Your task to perform on an android device: read, delete, or share a saved page in the chrome app Image 0: 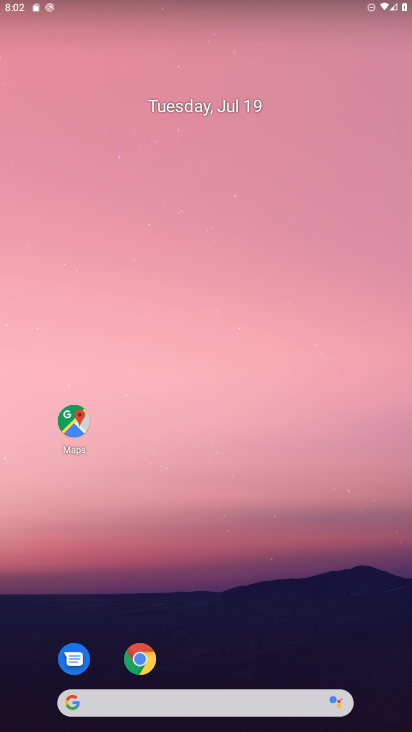
Step 0: drag from (222, 639) to (222, 112)
Your task to perform on an android device: read, delete, or share a saved page in the chrome app Image 1: 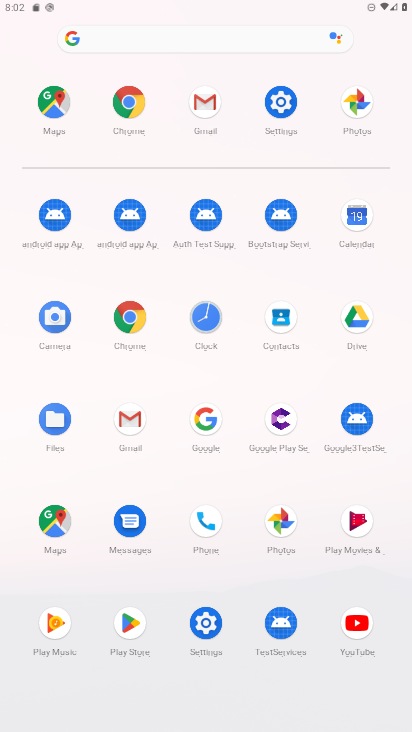
Step 1: click (115, 315)
Your task to perform on an android device: read, delete, or share a saved page in the chrome app Image 2: 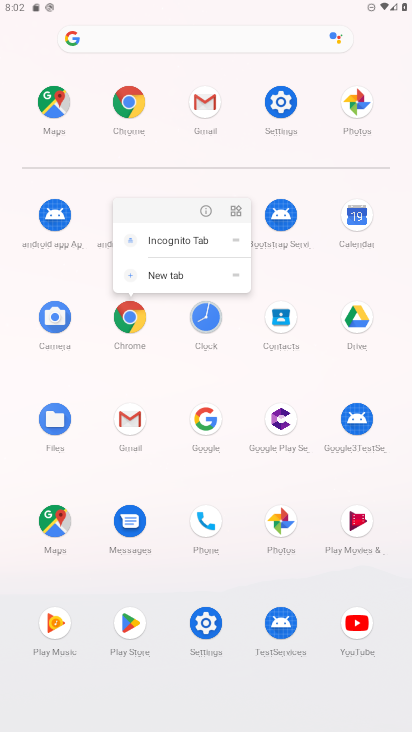
Step 2: click (124, 298)
Your task to perform on an android device: read, delete, or share a saved page in the chrome app Image 3: 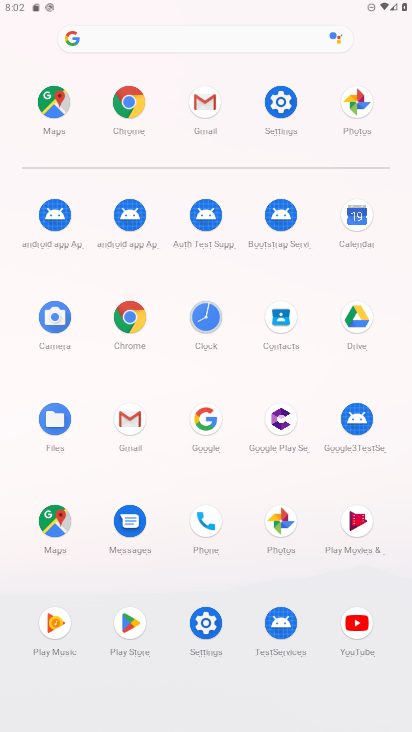
Step 3: click (124, 298)
Your task to perform on an android device: read, delete, or share a saved page in the chrome app Image 4: 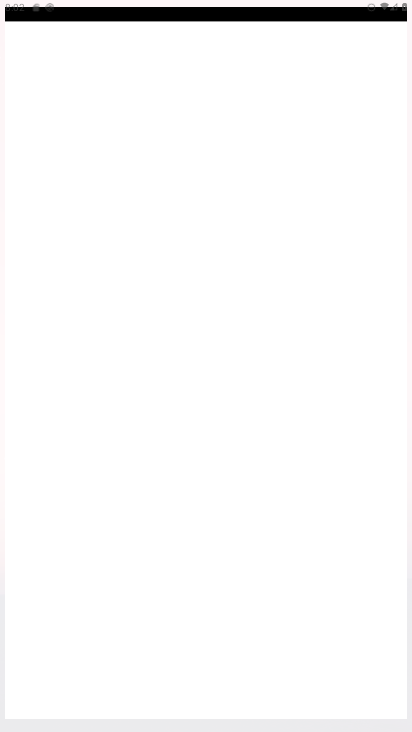
Step 4: click (124, 302)
Your task to perform on an android device: read, delete, or share a saved page in the chrome app Image 5: 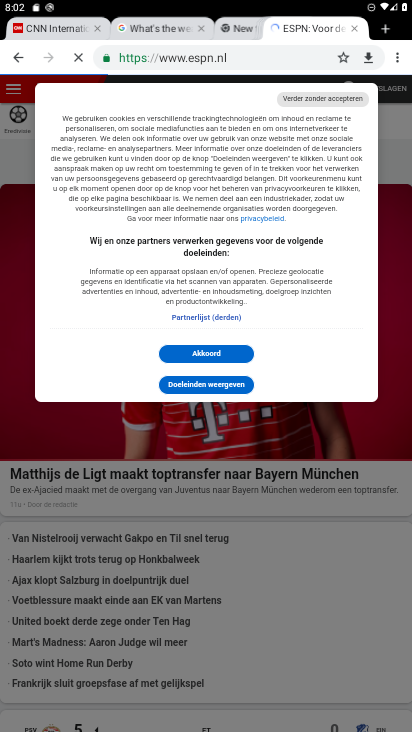
Step 5: click (398, 55)
Your task to perform on an android device: read, delete, or share a saved page in the chrome app Image 6: 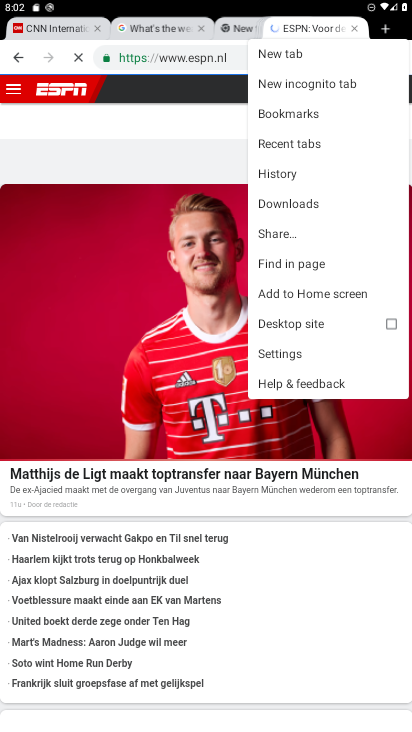
Step 6: click (295, 351)
Your task to perform on an android device: read, delete, or share a saved page in the chrome app Image 7: 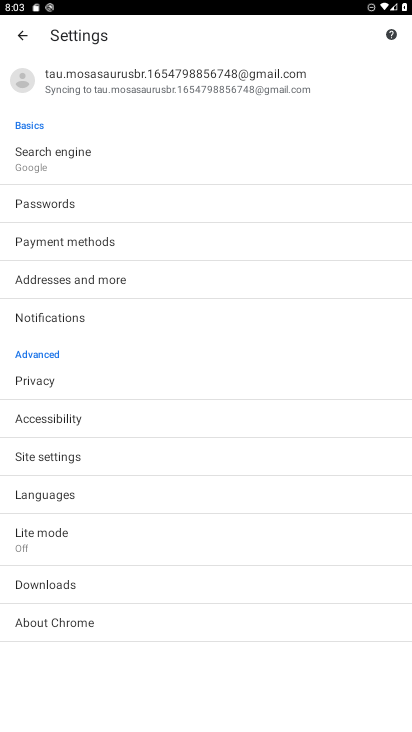
Step 7: task complete